Your task to perform on an android device: turn on data saver in the chrome app Image 0: 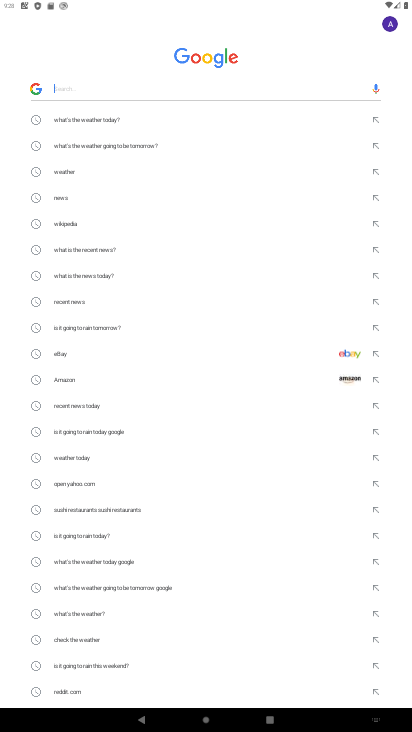
Step 0: press home button
Your task to perform on an android device: turn on data saver in the chrome app Image 1: 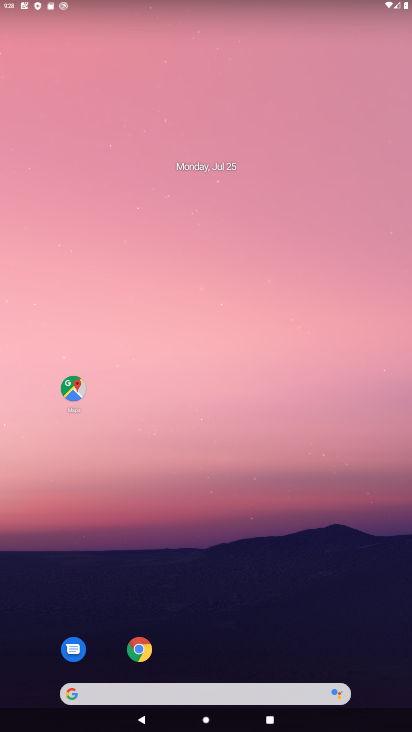
Step 1: drag from (310, 552) to (286, 54)
Your task to perform on an android device: turn on data saver in the chrome app Image 2: 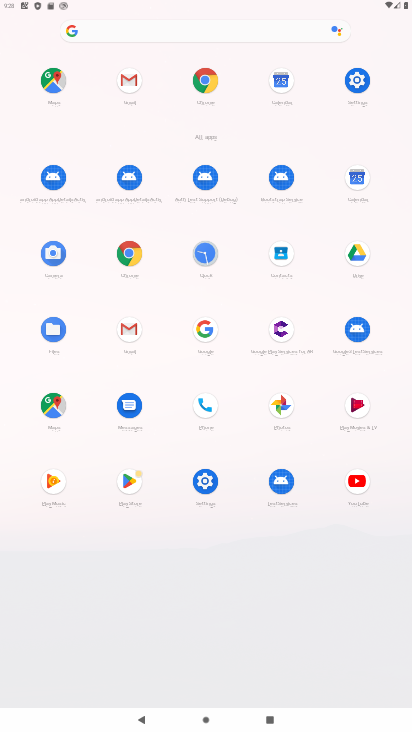
Step 2: click (208, 93)
Your task to perform on an android device: turn on data saver in the chrome app Image 3: 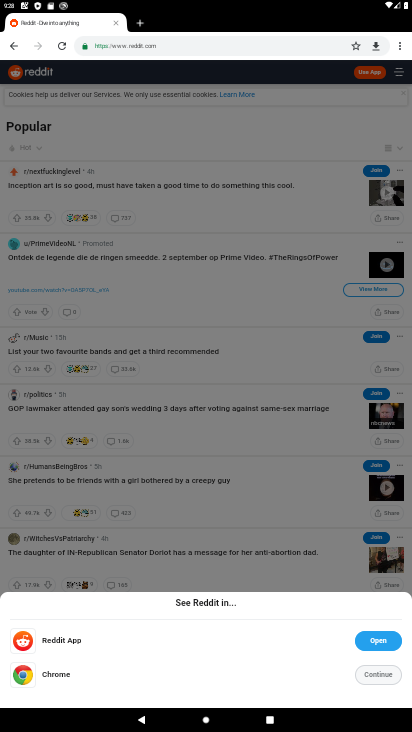
Step 3: click (409, 45)
Your task to perform on an android device: turn on data saver in the chrome app Image 4: 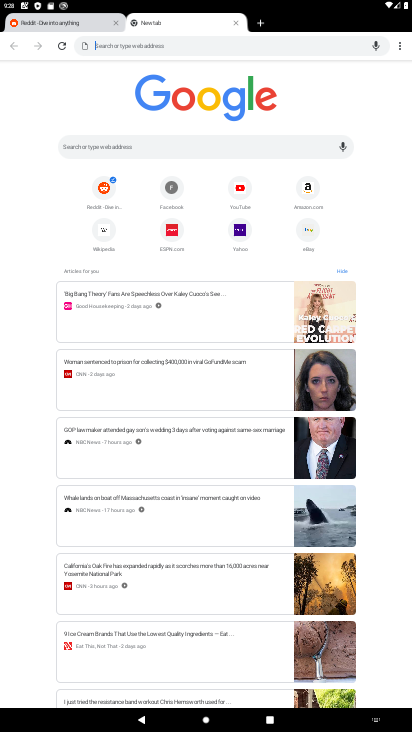
Step 4: drag from (404, 46) to (314, 216)
Your task to perform on an android device: turn on data saver in the chrome app Image 5: 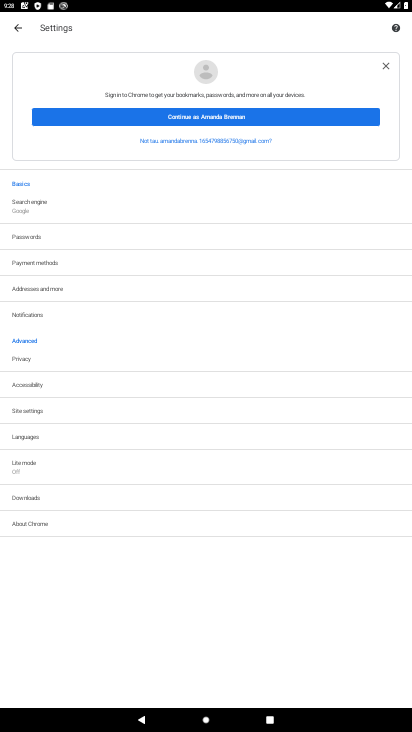
Step 5: click (40, 468)
Your task to perform on an android device: turn on data saver in the chrome app Image 6: 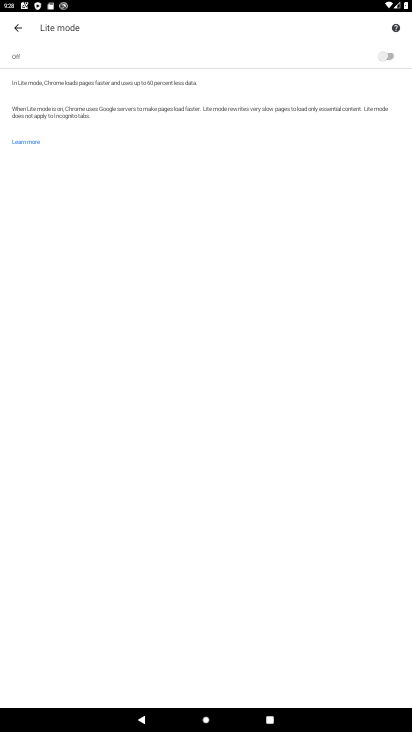
Step 6: click (391, 53)
Your task to perform on an android device: turn on data saver in the chrome app Image 7: 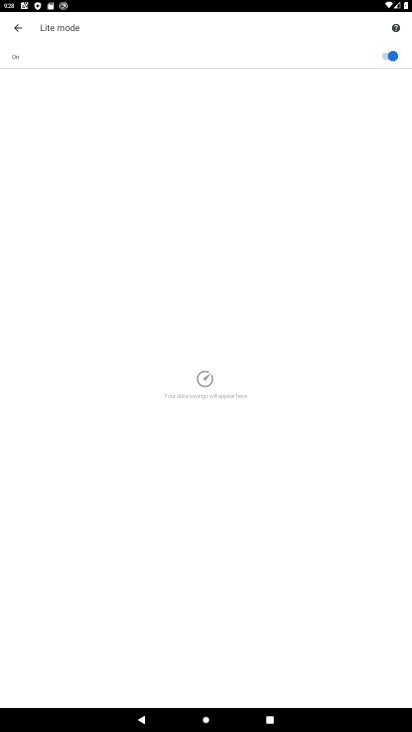
Step 7: task complete